Your task to perform on an android device: Do I have any events tomorrow? Image 0: 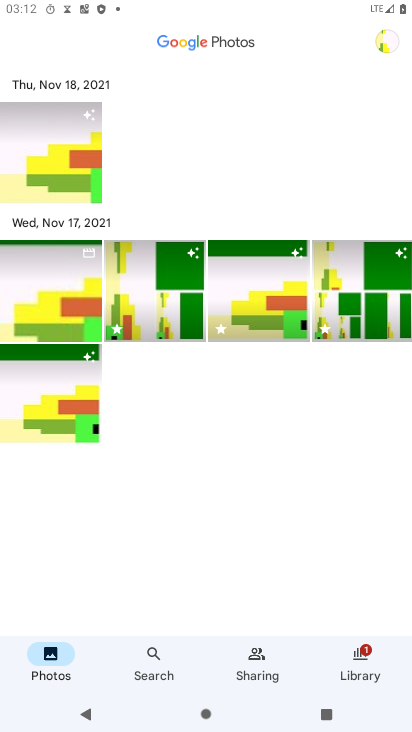
Step 0: press home button
Your task to perform on an android device: Do I have any events tomorrow? Image 1: 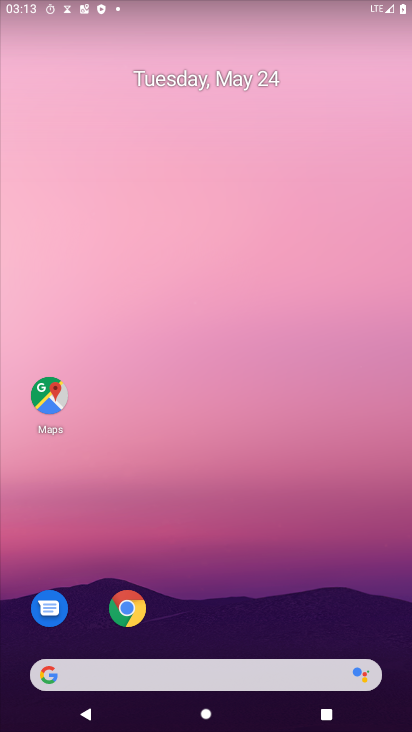
Step 1: drag from (233, 639) to (224, 43)
Your task to perform on an android device: Do I have any events tomorrow? Image 2: 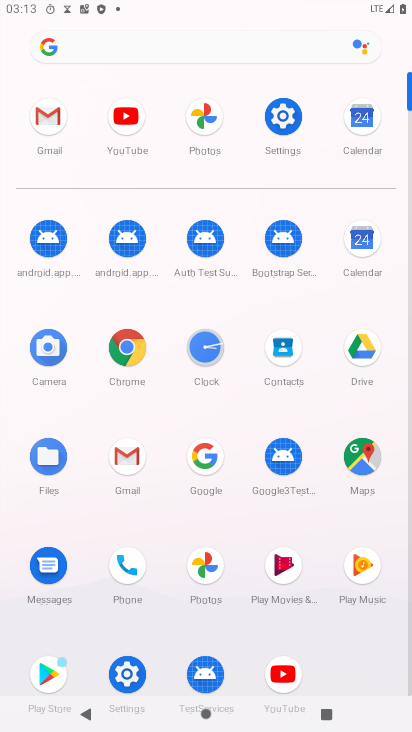
Step 2: click (375, 246)
Your task to perform on an android device: Do I have any events tomorrow? Image 3: 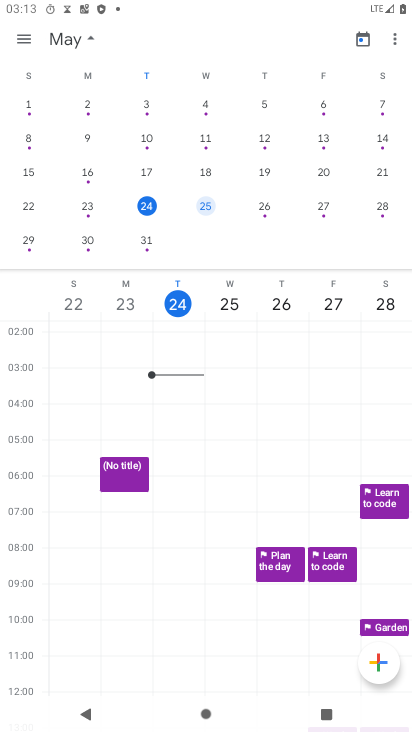
Step 3: click (28, 44)
Your task to perform on an android device: Do I have any events tomorrow? Image 4: 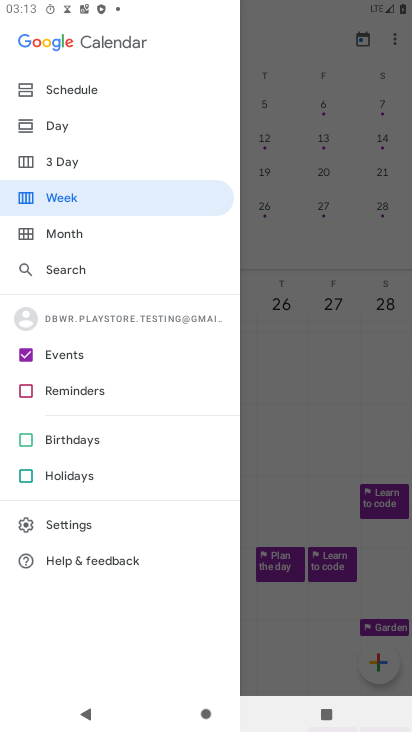
Step 4: click (73, 130)
Your task to perform on an android device: Do I have any events tomorrow? Image 5: 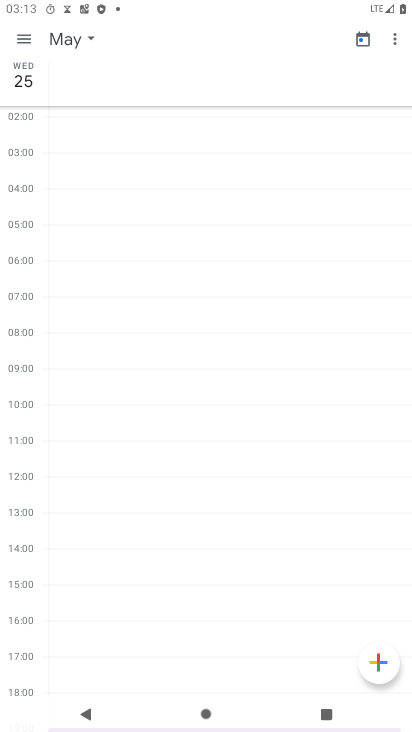
Step 5: task complete